Your task to perform on an android device: Open ESPN.com Image 0: 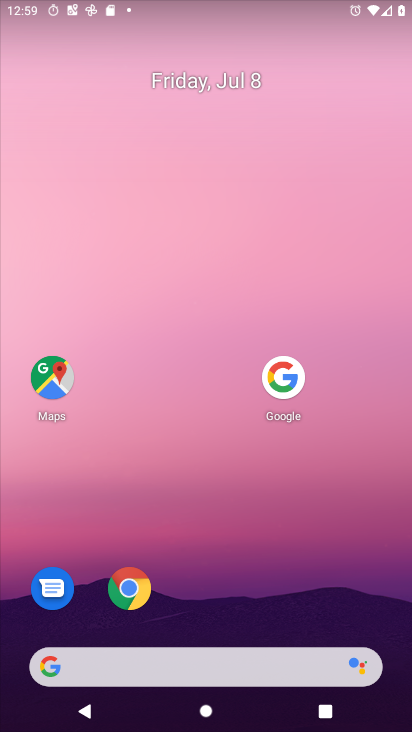
Step 0: click (145, 576)
Your task to perform on an android device: Open ESPN.com Image 1: 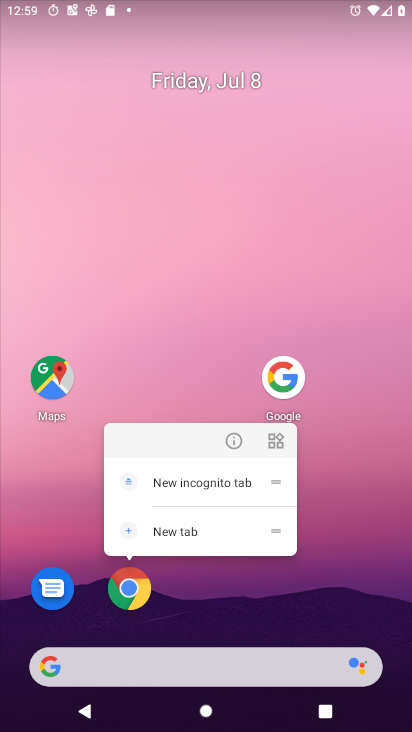
Step 1: click (131, 590)
Your task to perform on an android device: Open ESPN.com Image 2: 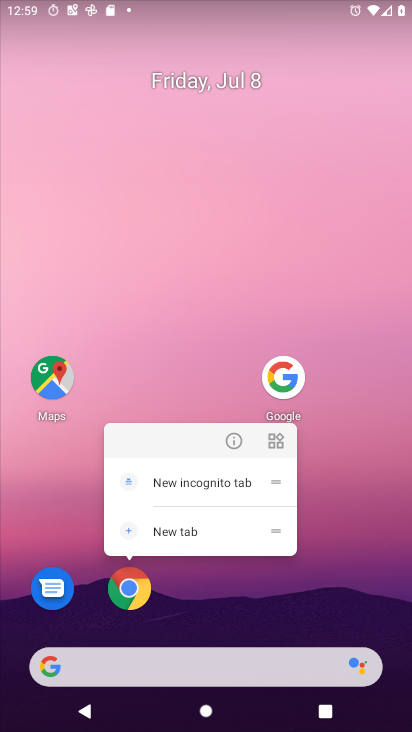
Step 2: click (131, 589)
Your task to perform on an android device: Open ESPN.com Image 3: 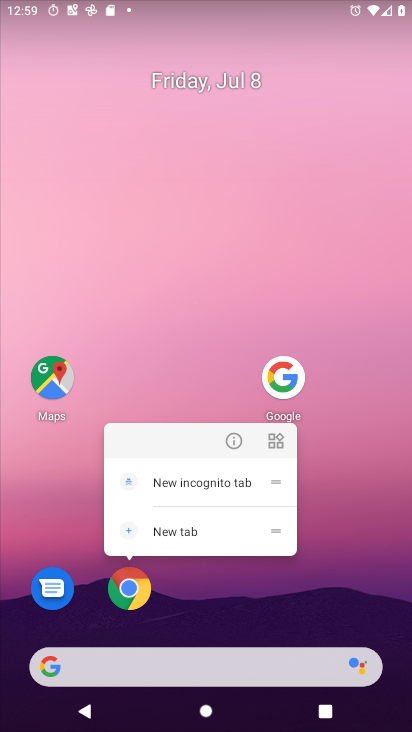
Step 3: click (125, 600)
Your task to perform on an android device: Open ESPN.com Image 4: 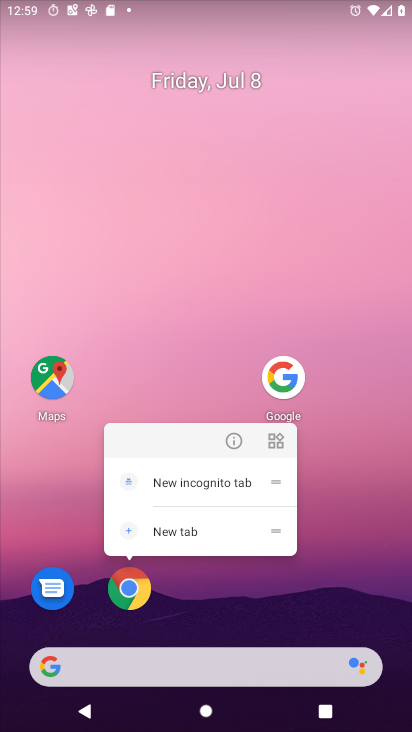
Step 4: click (126, 594)
Your task to perform on an android device: Open ESPN.com Image 5: 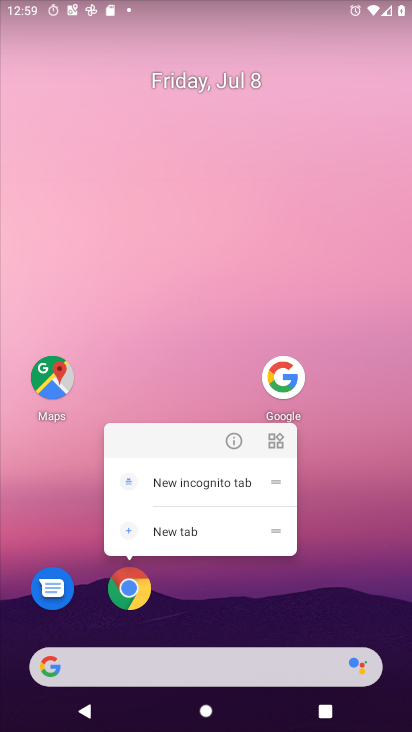
Step 5: click (130, 590)
Your task to perform on an android device: Open ESPN.com Image 6: 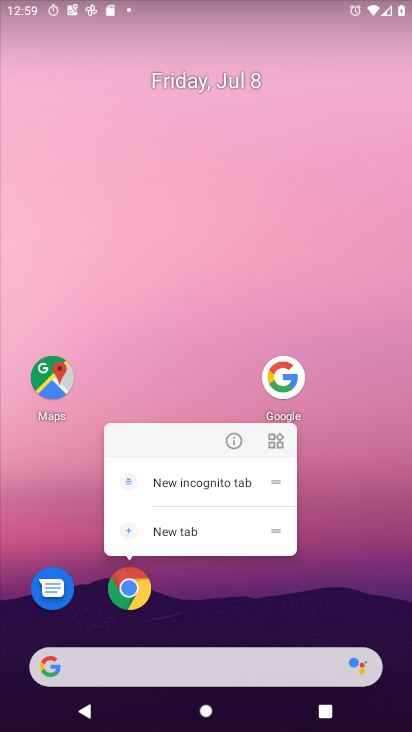
Step 6: click (136, 589)
Your task to perform on an android device: Open ESPN.com Image 7: 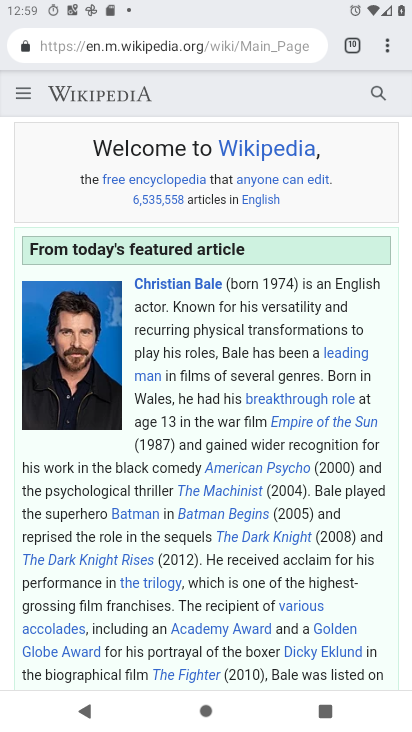
Step 7: drag from (387, 47) to (242, 94)
Your task to perform on an android device: Open ESPN.com Image 8: 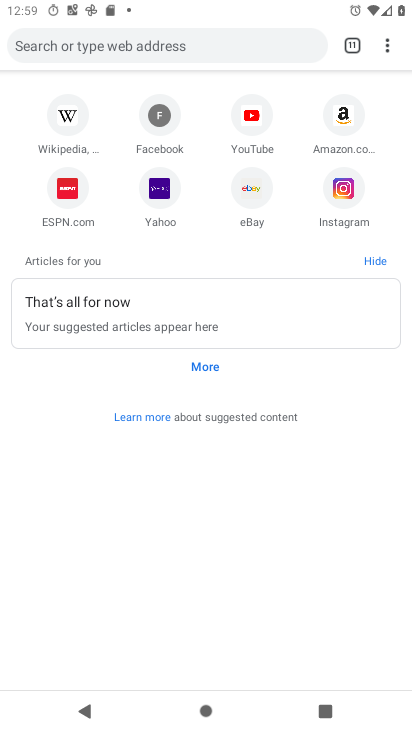
Step 8: click (65, 198)
Your task to perform on an android device: Open ESPN.com Image 9: 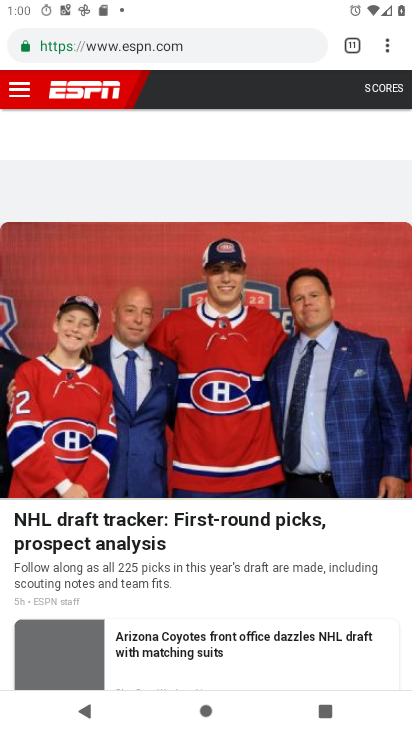
Step 9: task complete